Your task to perform on an android device: open chrome privacy settings Image 0: 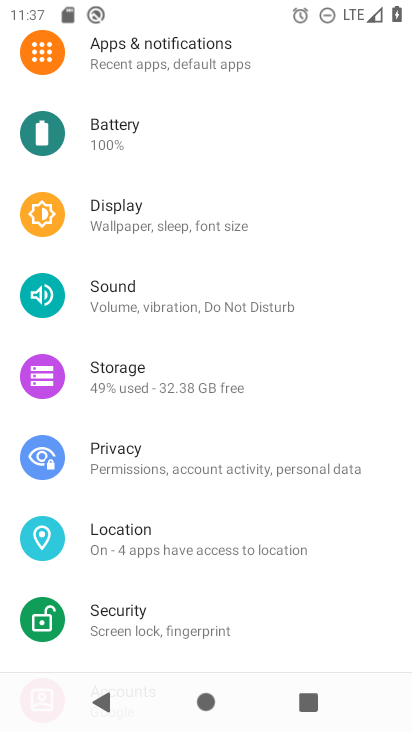
Step 0: drag from (349, 537) to (350, 226)
Your task to perform on an android device: open chrome privacy settings Image 1: 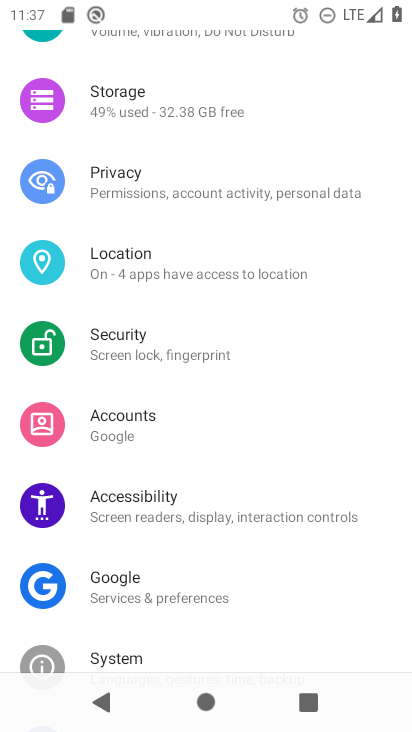
Step 1: drag from (335, 565) to (346, 363)
Your task to perform on an android device: open chrome privacy settings Image 2: 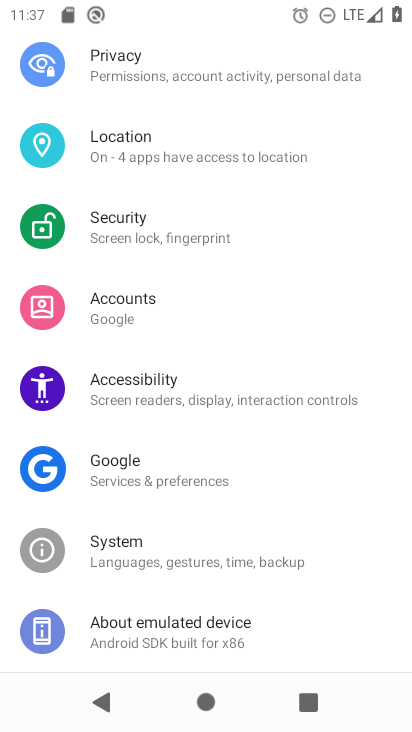
Step 2: drag from (322, 579) to (332, 426)
Your task to perform on an android device: open chrome privacy settings Image 3: 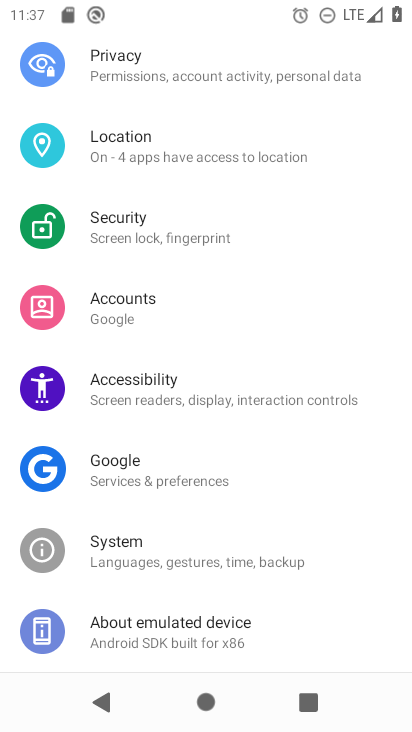
Step 3: drag from (304, 269) to (333, 470)
Your task to perform on an android device: open chrome privacy settings Image 4: 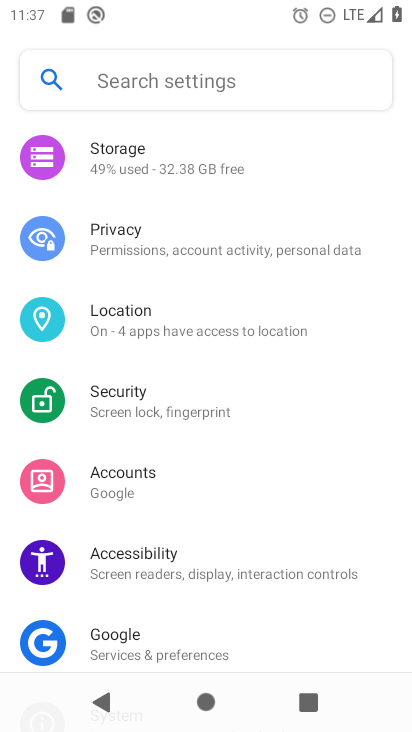
Step 4: drag from (314, 206) to (340, 476)
Your task to perform on an android device: open chrome privacy settings Image 5: 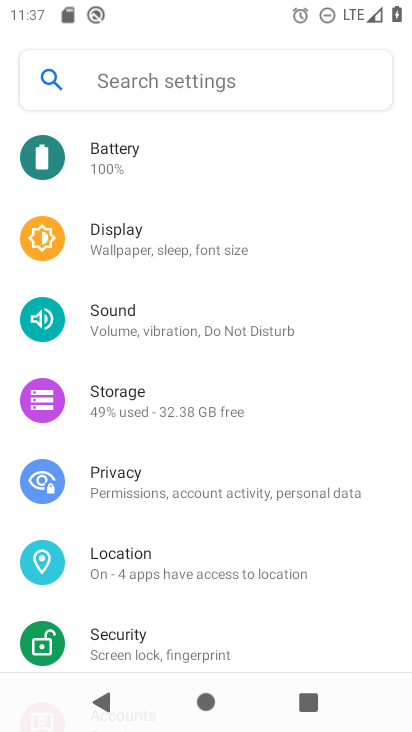
Step 5: click (143, 492)
Your task to perform on an android device: open chrome privacy settings Image 6: 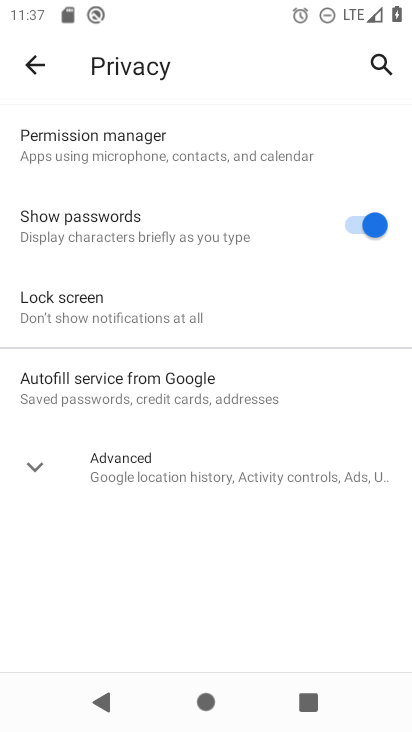
Step 6: click (178, 467)
Your task to perform on an android device: open chrome privacy settings Image 7: 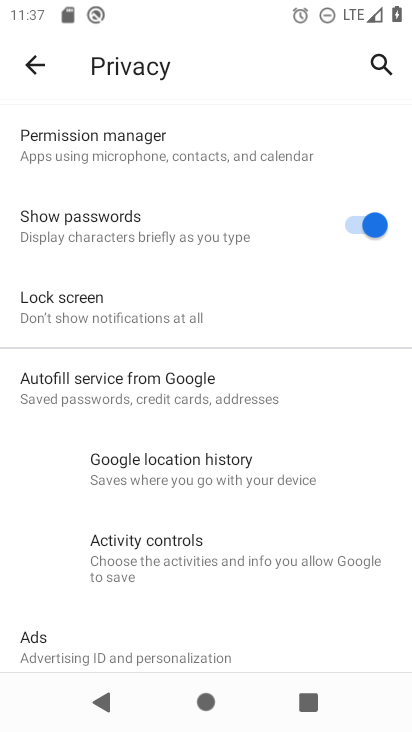
Step 7: task complete